Your task to perform on an android device: turn on wifi Image 0: 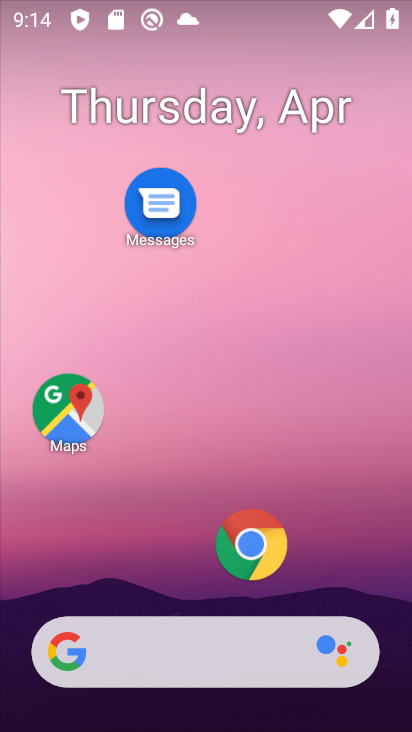
Step 0: drag from (213, 618) to (209, 213)
Your task to perform on an android device: turn on wifi Image 1: 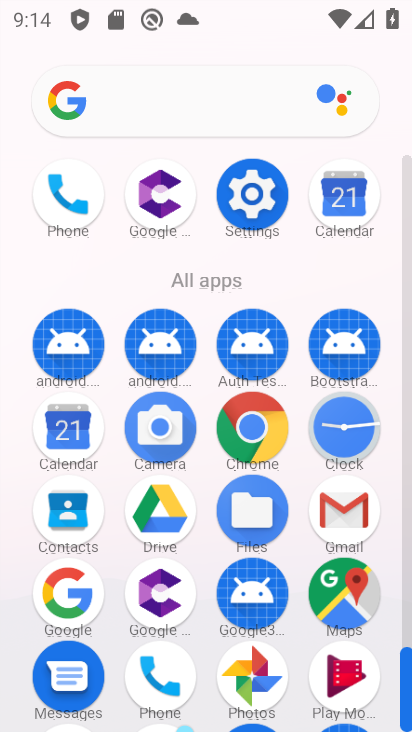
Step 1: drag from (205, 609) to (275, 125)
Your task to perform on an android device: turn on wifi Image 2: 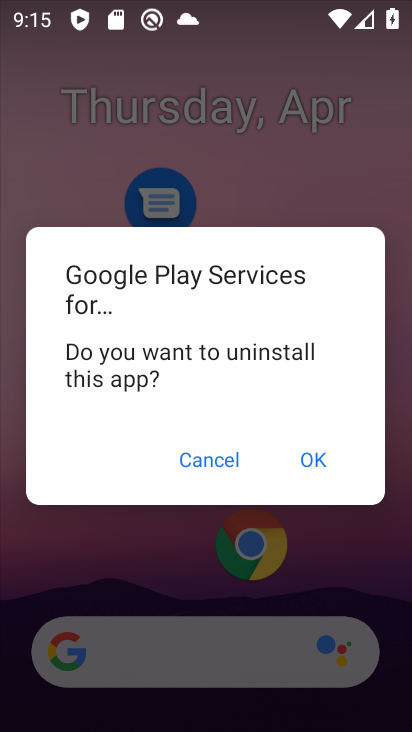
Step 2: click (224, 456)
Your task to perform on an android device: turn on wifi Image 3: 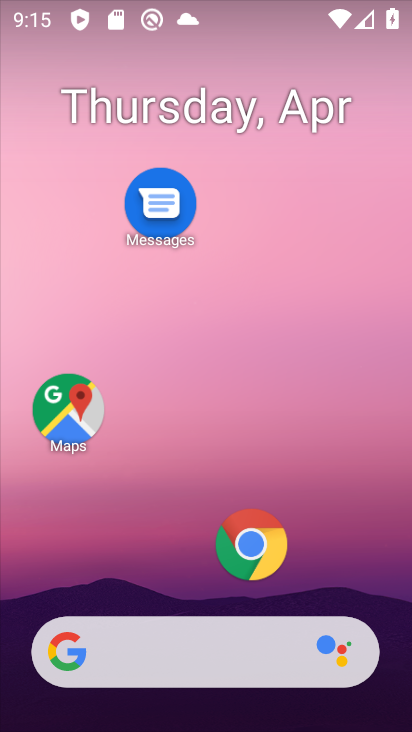
Step 3: drag from (220, 607) to (222, 172)
Your task to perform on an android device: turn on wifi Image 4: 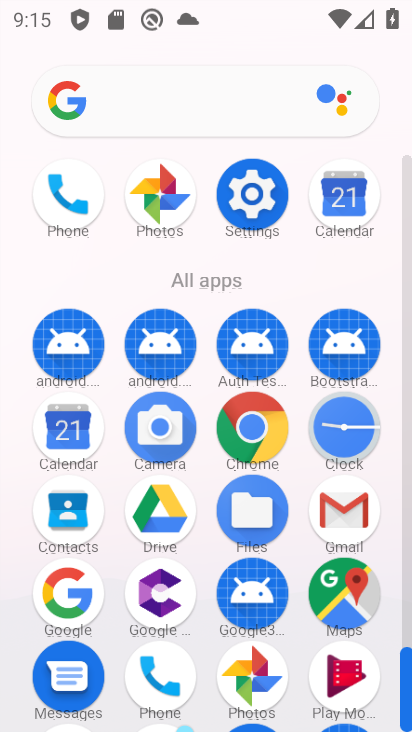
Step 4: click (262, 193)
Your task to perform on an android device: turn on wifi Image 5: 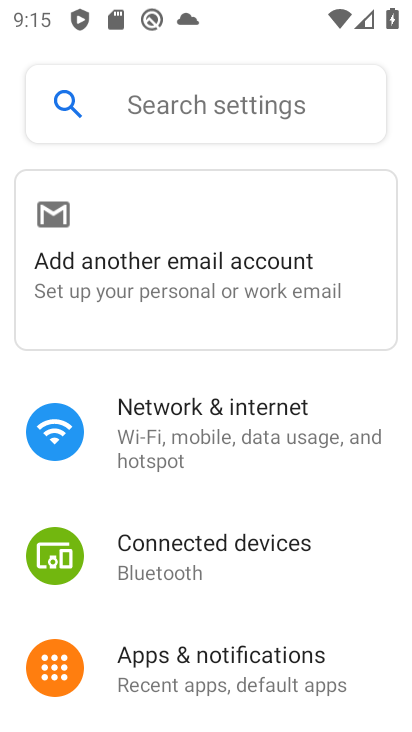
Step 5: click (218, 416)
Your task to perform on an android device: turn on wifi Image 6: 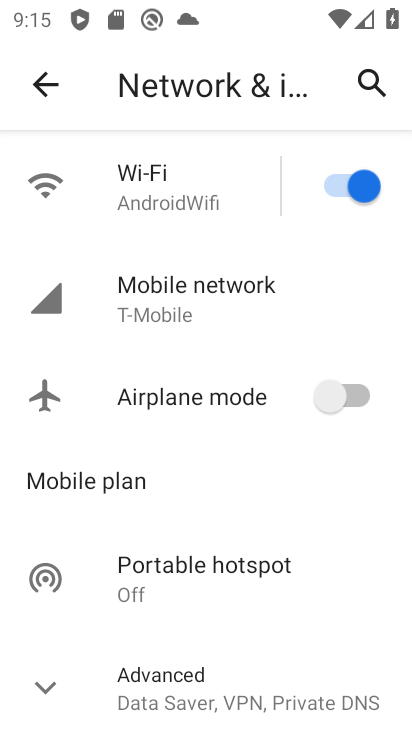
Step 6: task complete